Your task to perform on an android device: add a label to a message in the gmail app Image 0: 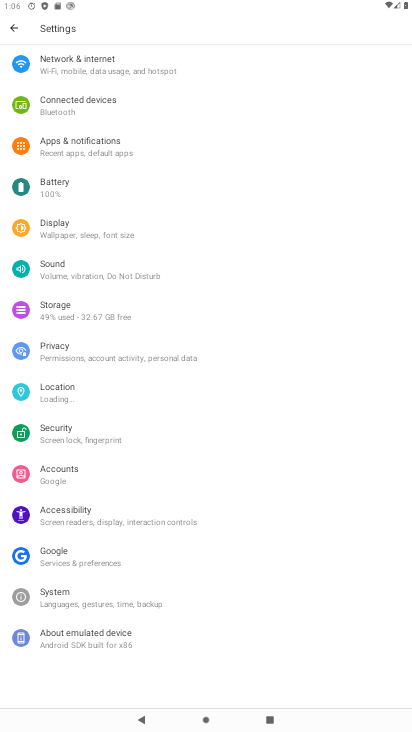
Step 0: press home button
Your task to perform on an android device: add a label to a message in the gmail app Image 1: 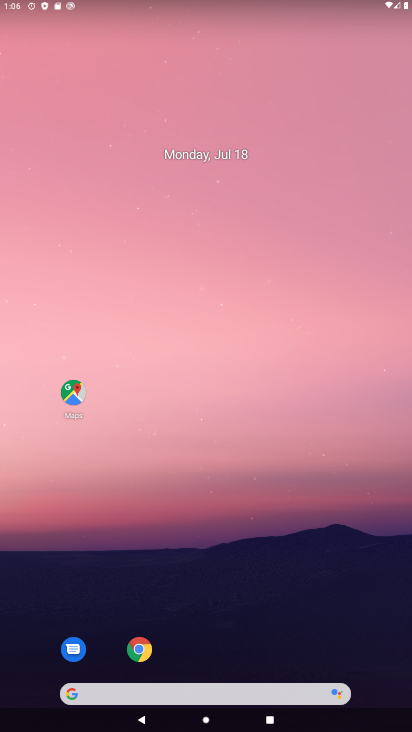
Step 1: drag from (206, 688) to (202, 9)
Your task to perform on an android device: add a label to a message in the gmail app Image 2: 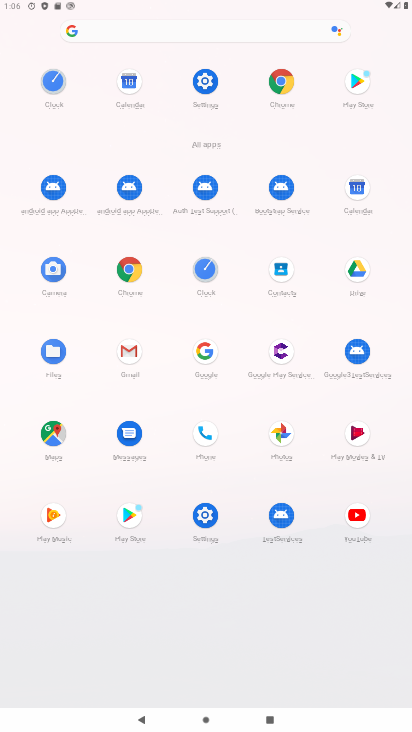
Step 2: click (129, 353)
Your task to perform on an android device: add a label to a message in the gmail app Image 3: 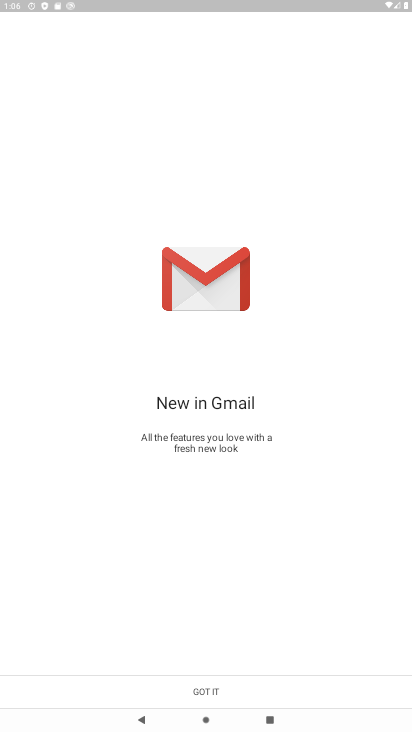
Step 3: click (237, 686)
Your task to perform on an android device: add a label to a message in the gmail app Image 4: 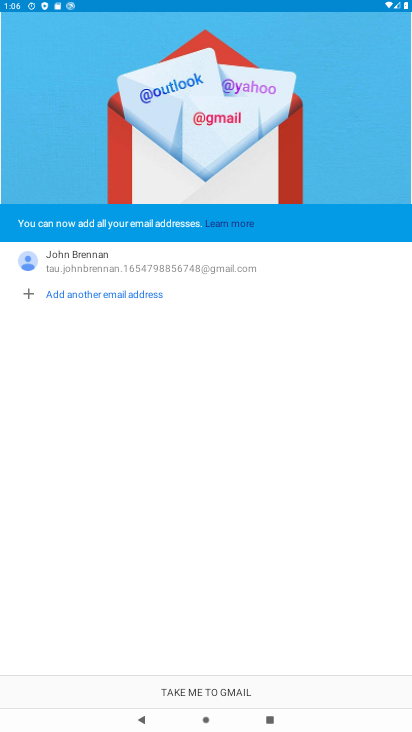
Step 4: click (237, 683)
Your task to perform on an android device: add a label to a message in the gmail app Image 5: 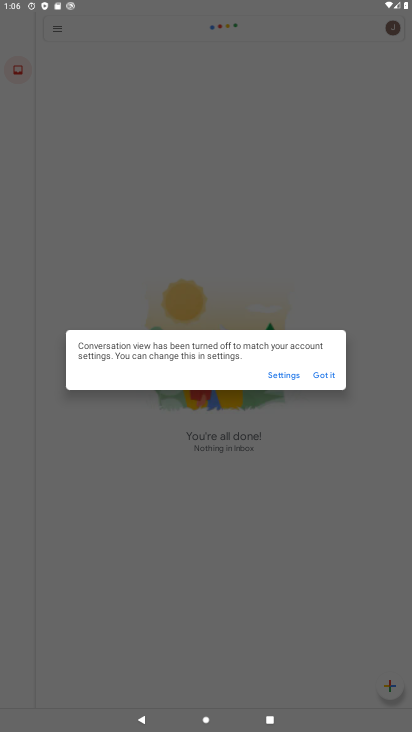
Step 5: click (327, 371)
Your task to perform on an android device: add a label to a message in the gmail app Image 6: 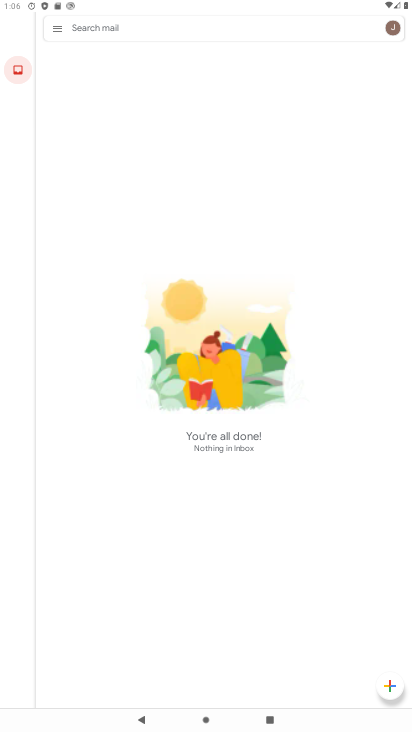
Step 6: task complete